Your task to perform on an android device: open chrome and create a bookmark for the current page Image 0: 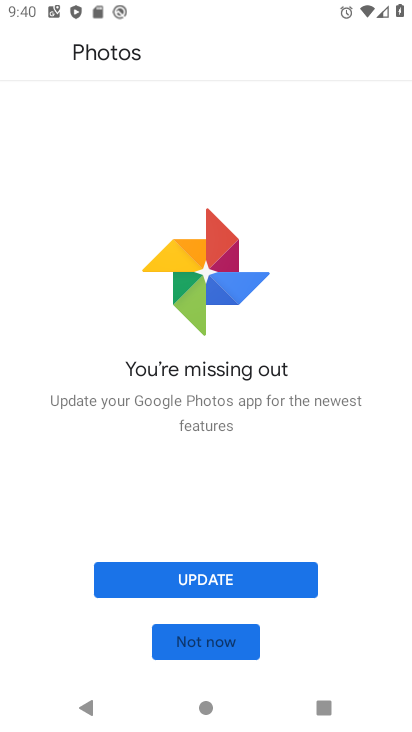
Step 0: press home button
Your task to perform on an android device: open chrome and create a bookmark for the current page Image 1: 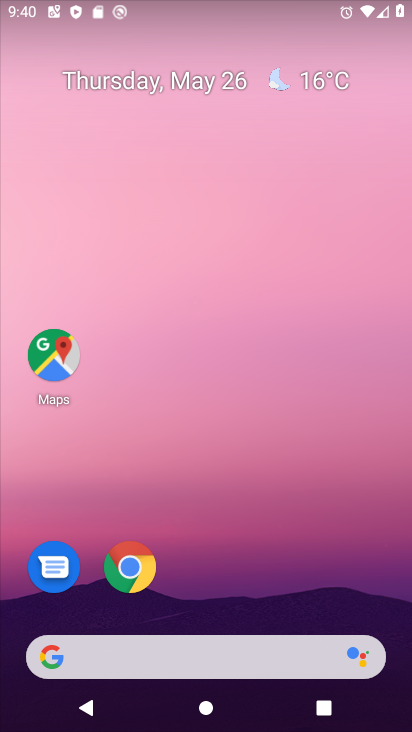
Step 1: click (125, 569)
Your task to perform on an android device: open chrome and create a bookmark for the current page Image 2: 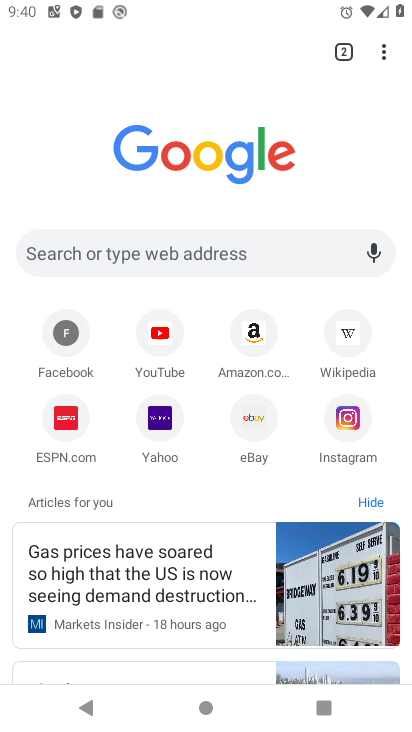
Step 2: click (382, 47)
Your task to perform on an android device: open chrome and create a bookmark for the current page Image 3: 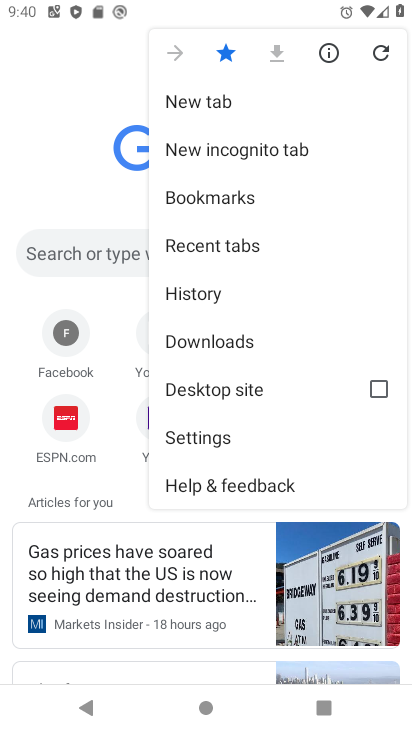
Step 3: task complete